Your task to perform on an android device: turn notification dots on Image 0: 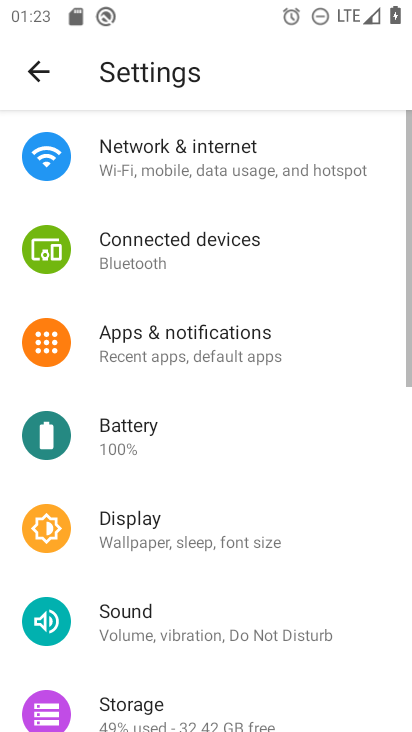
Step 0: click (265, 341)
Your task to perform on an android device: turn notification dots on Image 1: 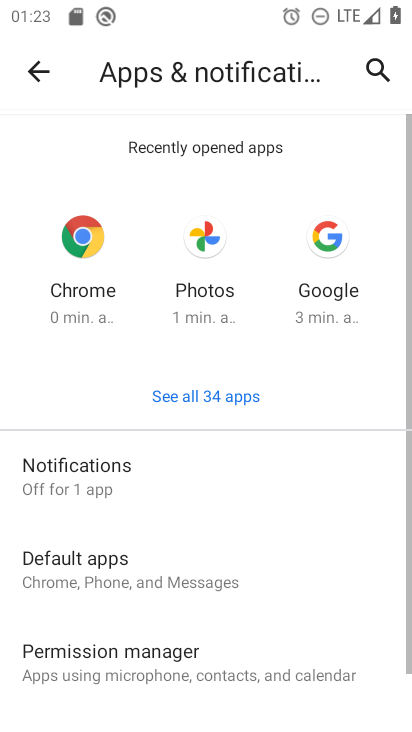
Step 1: click (136, 486)
Your task to perform on an android device: turn notification dots on Image 2: 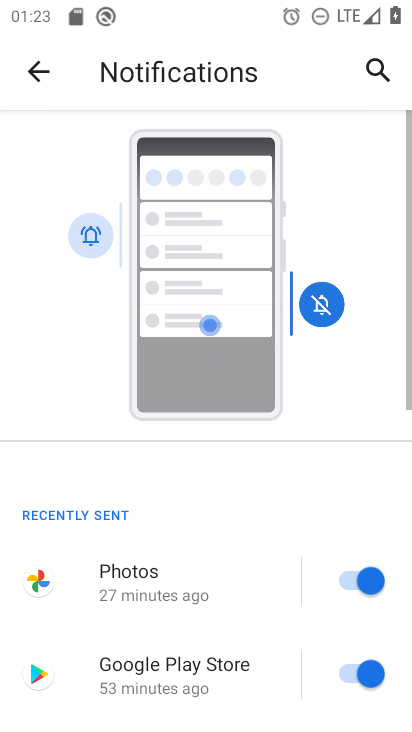
Step 2: drag from (258, 674) to (404, 29)
Your task to perform on an android device: turn notification dots on Image 3: 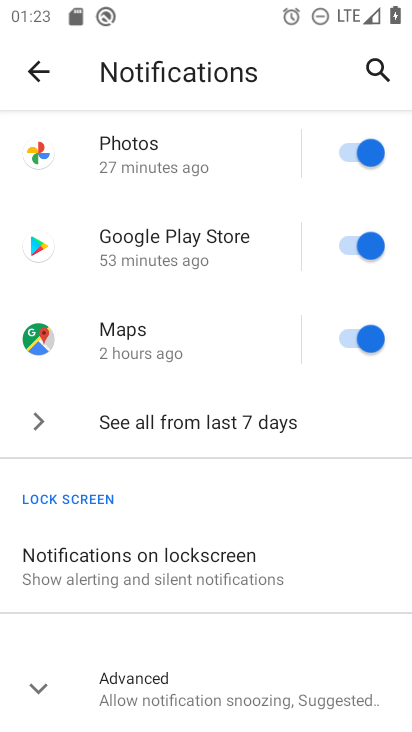
Step 3: click (197, 704)
Your task to perform on an android device: turn notification dots on Image 4: 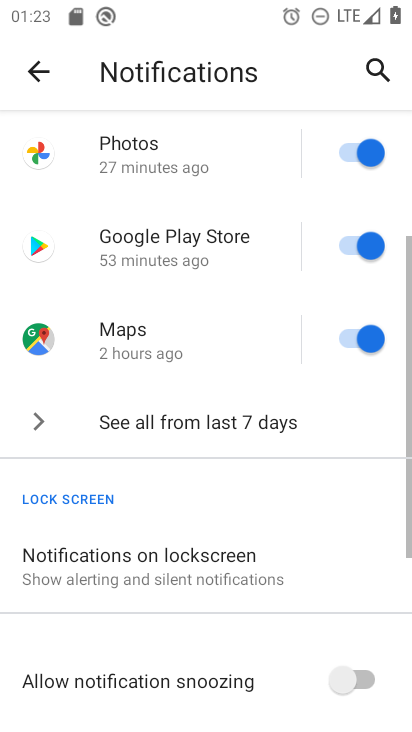
Step 4: task complete